Your task to perform on an android device: View the shopping cart on newegg.com. Search for usb-c to usb-b on newegg.com, select the first entry, add it to the cart, then select checkout. Image 0: 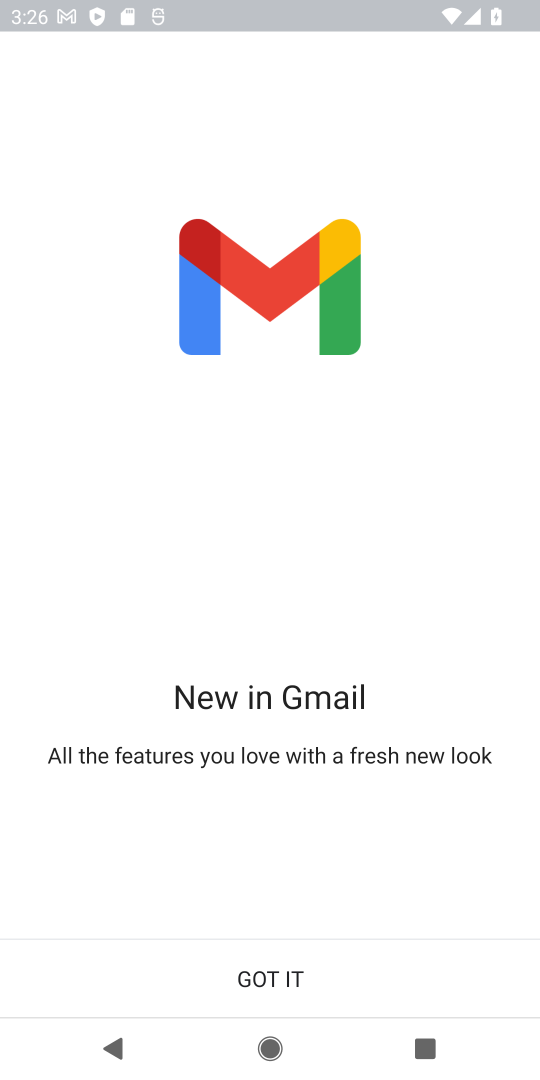
Step 0: press home button
Your task to perform on an android device: View the shopping cart on newegg.com. Search for usb-c to usb-b on newegg.com, select the first entry, add it to the cart, then select checkout. Image 1: 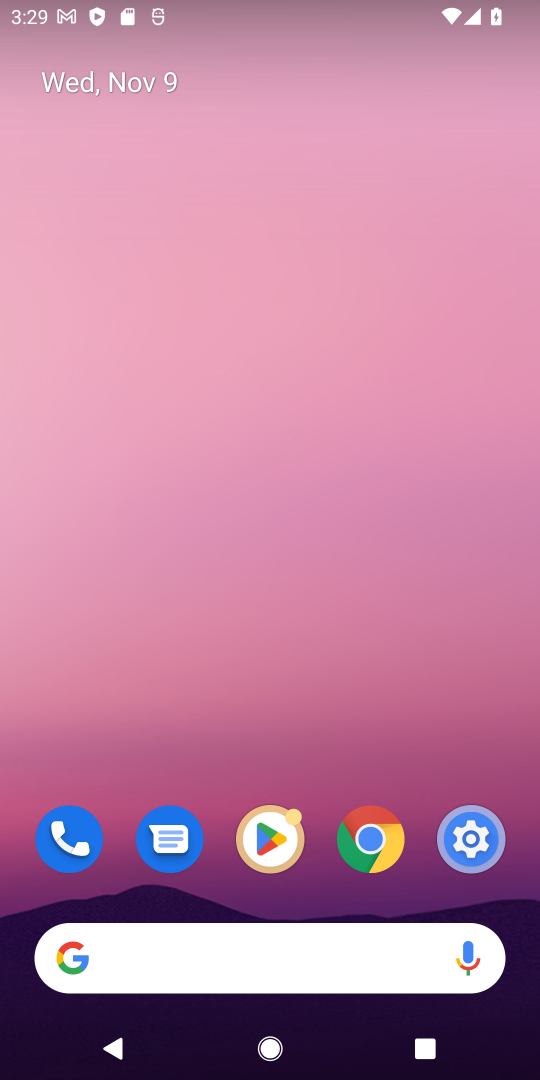
Step 1: click (239, 976)
Your task to perform on an android device: View the shopping cart on newegg.com. Search for usb-c to usb-b on newegg.com, select the first entry, add it to the cart, then select checkout. Image 2: 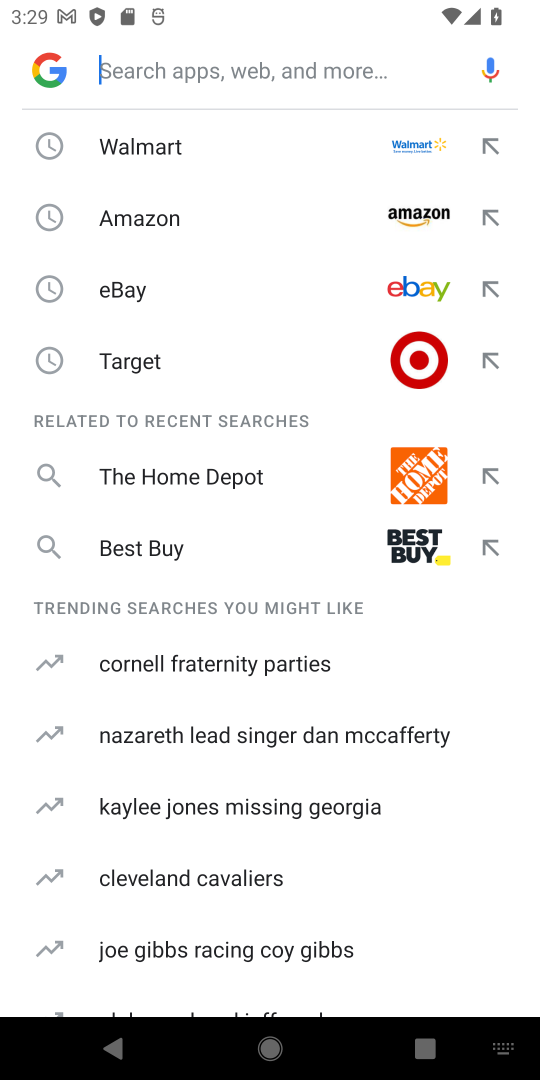
Step 2: type "newegg"
Your task to perform on an android device: View the shopping cart on newegg.com. Search for usb-c to usb-b on newegg.com, select the first entry, add it to the cart, then select checkout. Image 3: 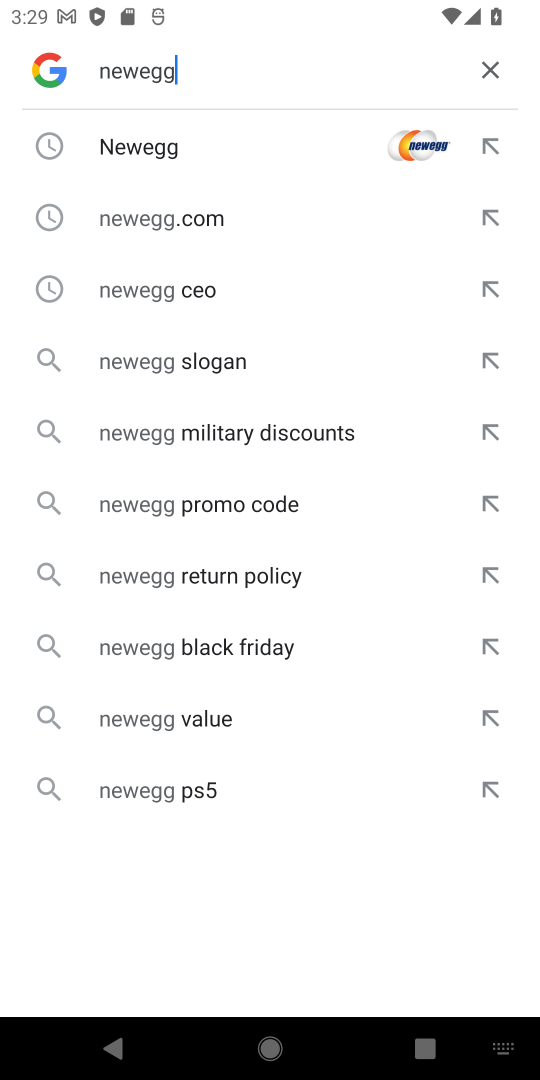
Step 3: click (261, 150)
Your task to perform on an android device: View the shopping cart on newegg.com. Search for usb-c to usb-b on newegg.com, select the first entry, add it to the cart, then select checkout. Image 4: 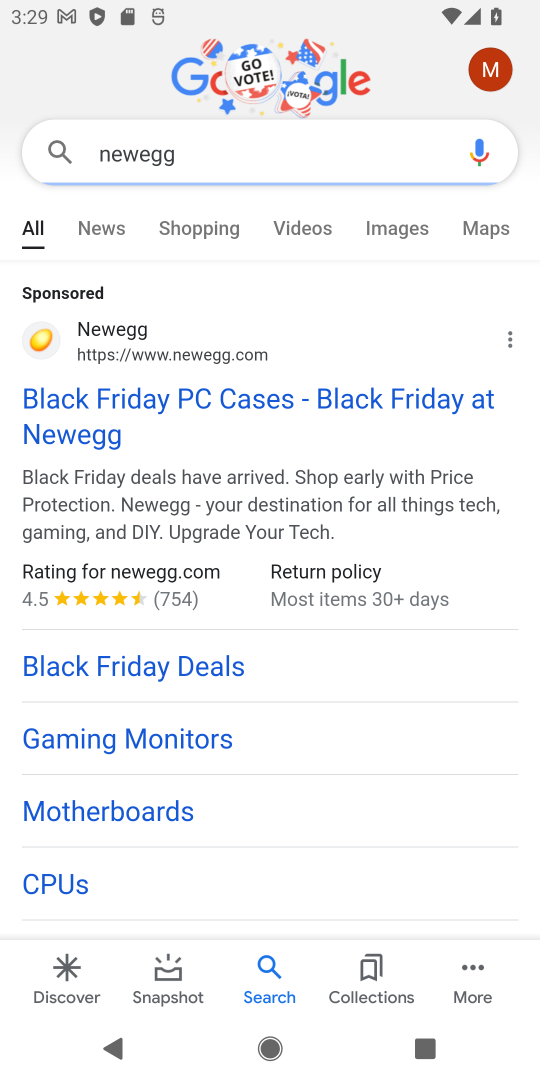
Step 4: click (203, 407)
Your task to perform on an android device: View the shopping cart on newegg.com. Search for usb-c to usb-b on newegg.com, select the first entry, add it to the cart, then select checkout. Image 5: 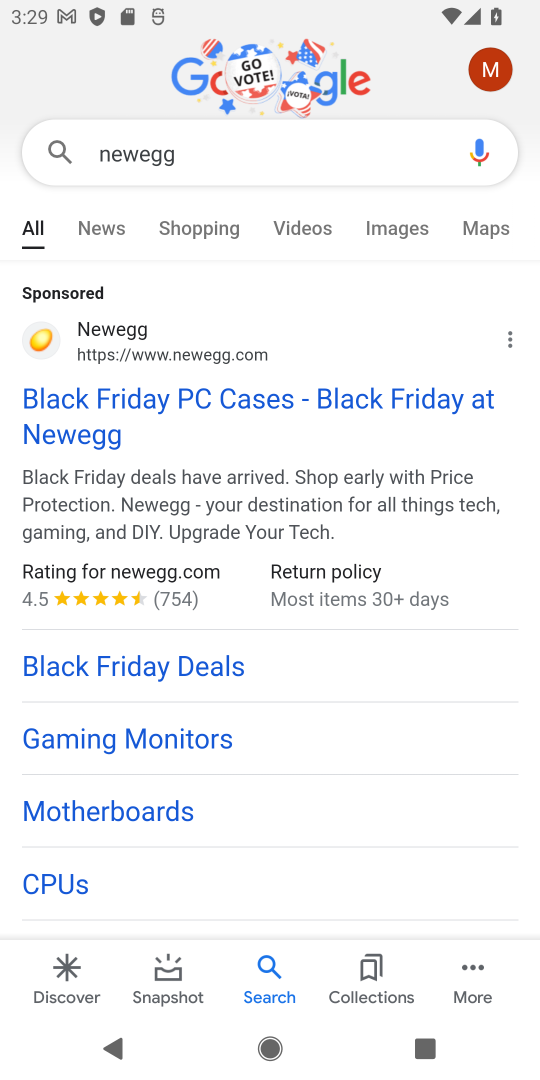
Step 5: task complete